Your task to perform on an android device: choose inbox layout in the gmail app Image 0: 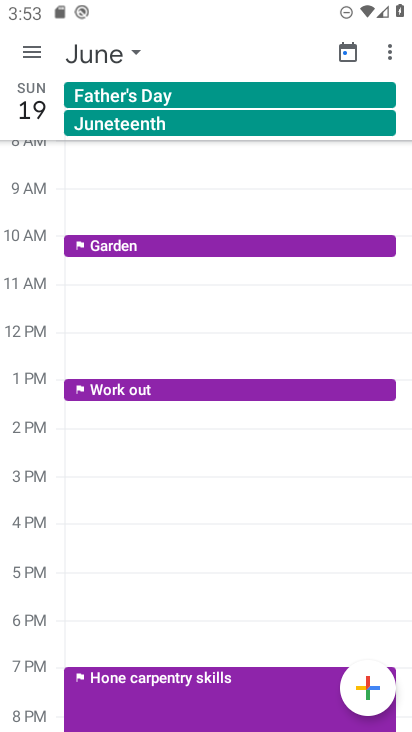
Step 0: press home button
Your task to perform on an android device: choose inbox layout in the gmail app Image 1: 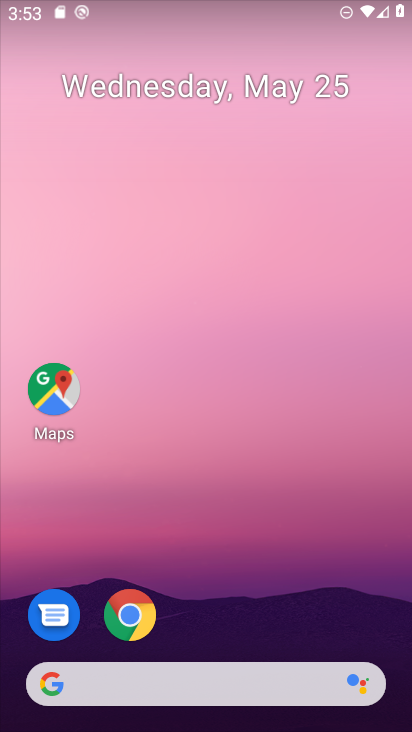
Step 1: drag from (265, 521) to (291, 50)
Your task to perform on an android device: choose inbox layout in the gmail app Image 2: 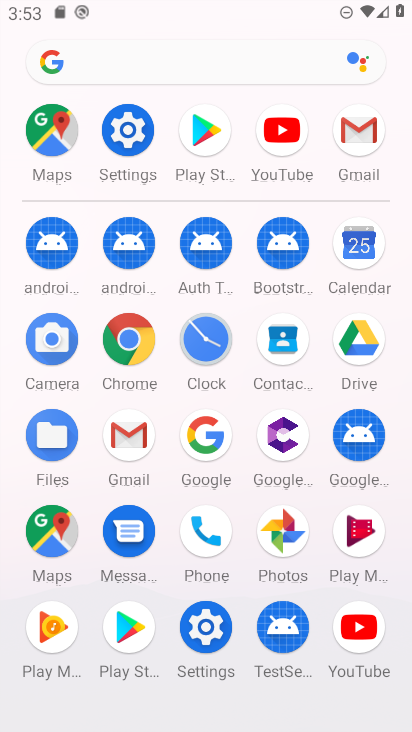
Step 2: click (360, 137)
Your task to perform on an android device: choose inbox layout in the gmail app Image 3: 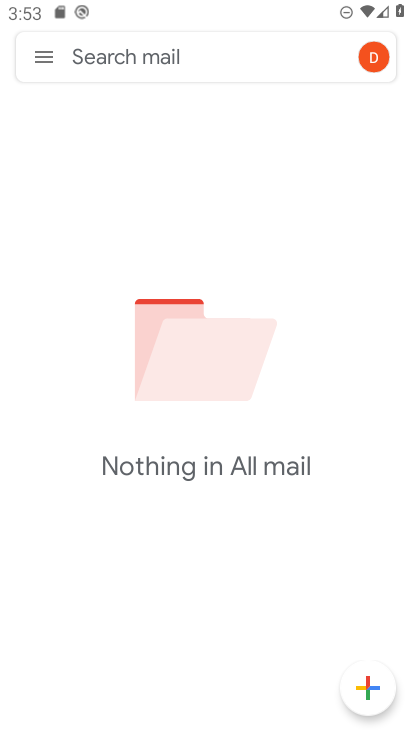
Step 3: click (42, 47)
Your task to perform on an android device: choose inbox layout in the gmail app Image 4: 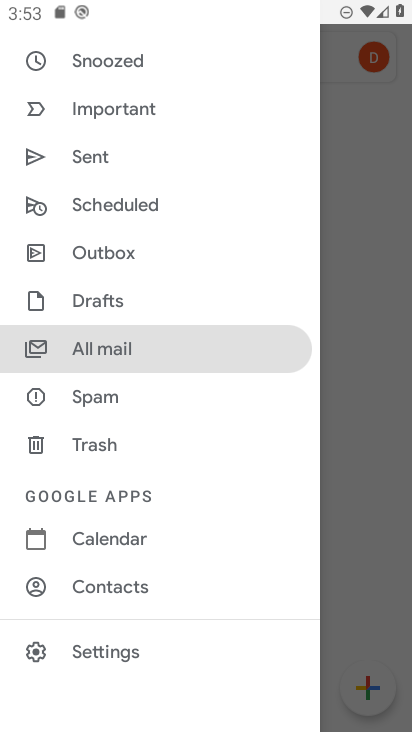
Step 4: click (98, 651)
Your task to perform on an android device: choose inbox layout in the gmail app Image 5: 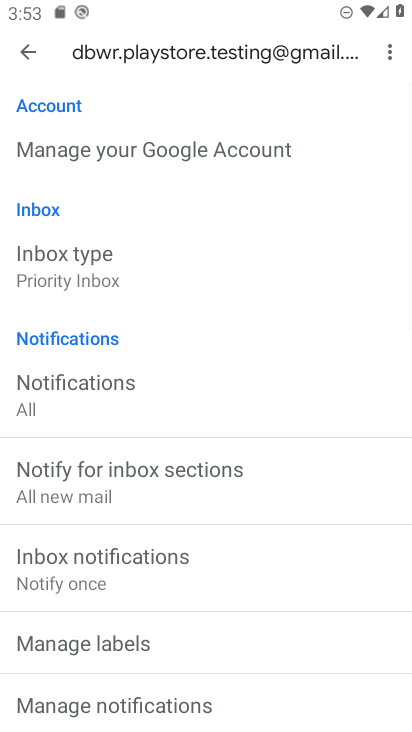
Step 5: click (113, 257)
Your task to perform on an android device: choose inbox layout in the gmail app Image 6: 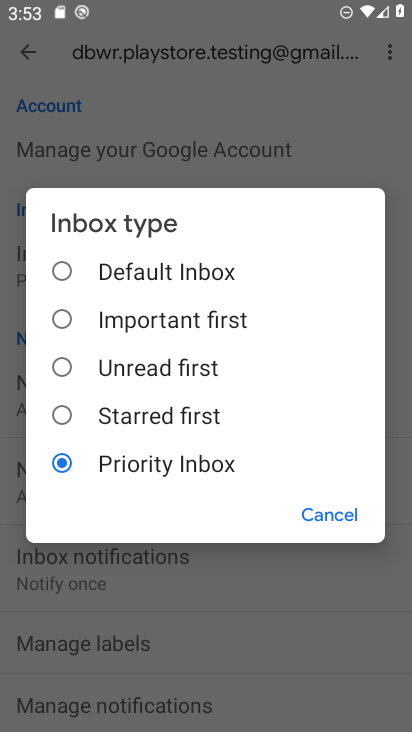
Step 6: click (68, 266)
Your task to perform on an android device: choose inbox layout in the gmail app Image 7: 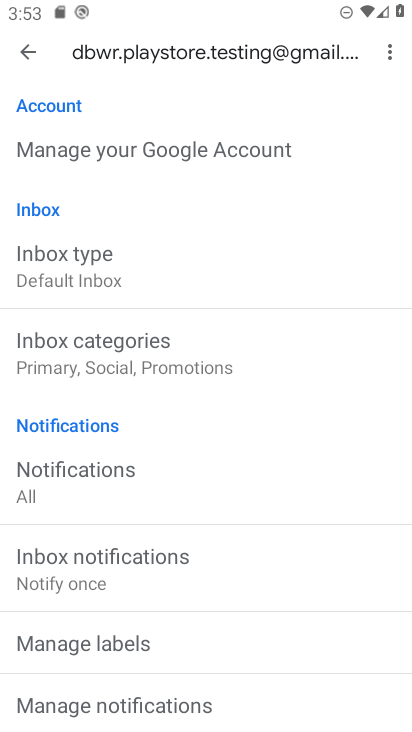
Step 7: task complete